Your task to perform on an android device: change the clock style Image 0: 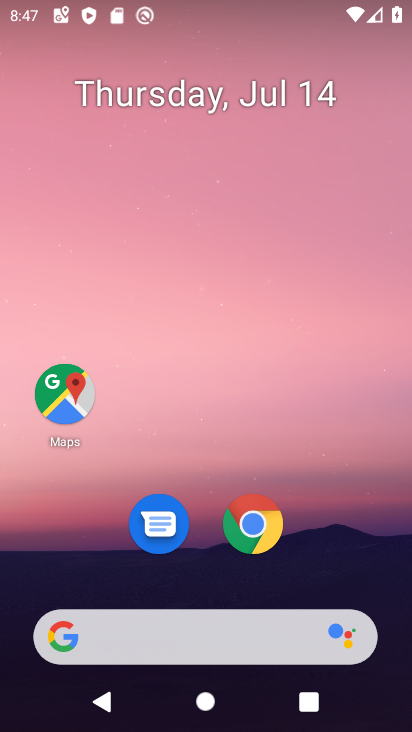
Step 0: drag from (342, 543) to (331, 0)
Your task to perform on an android device: change the clock style Image 1: 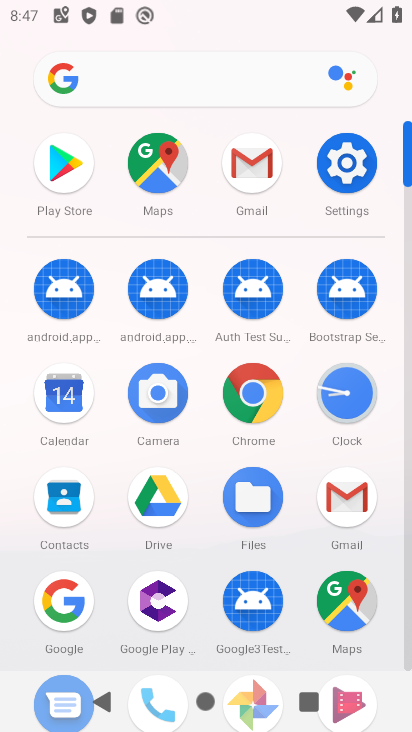
Step 1: click (351, 385)
Your task to perform on an android device: change the clock style Image 2: 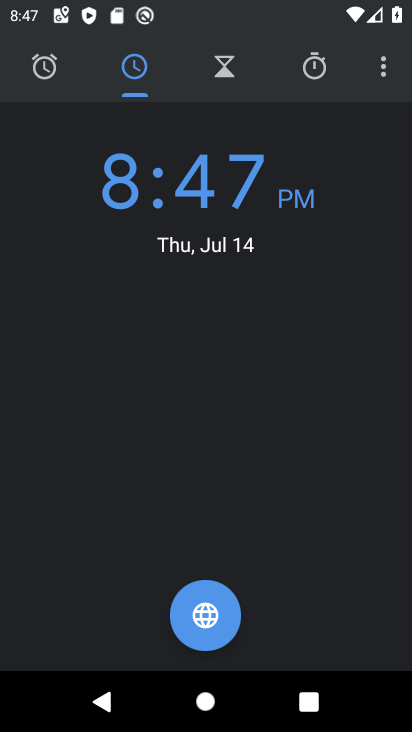
Step 2: click (385, 77)
Your task to perform on an android device: change the clock style Image 3: 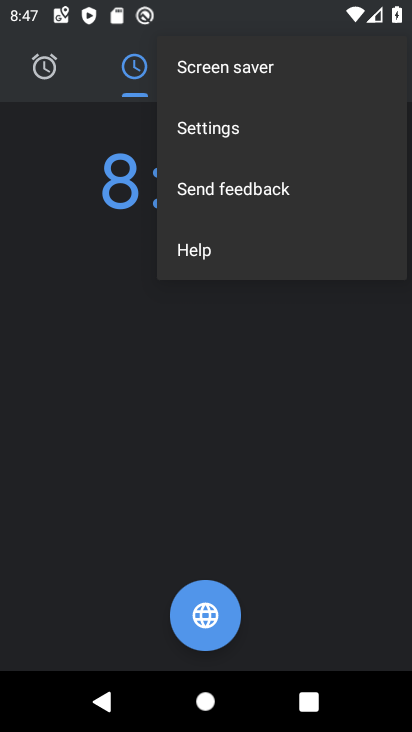
Step 3: click (286, 125)
Your task to perform on an android device: change the clock style Image 4: 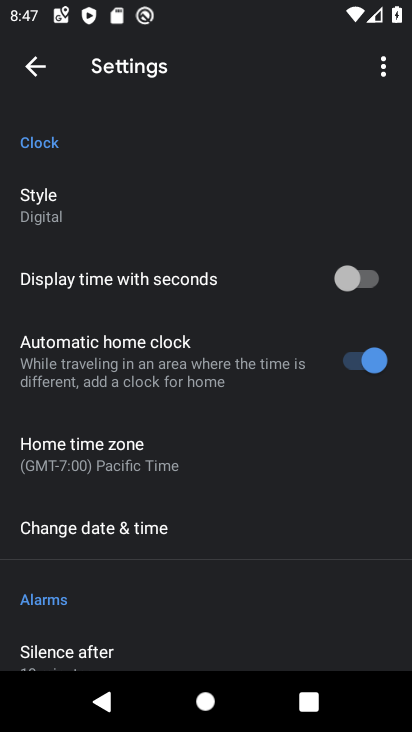
Step 4: click (55, 220)
Your task to perform on an android device: change the clock style Image 5: 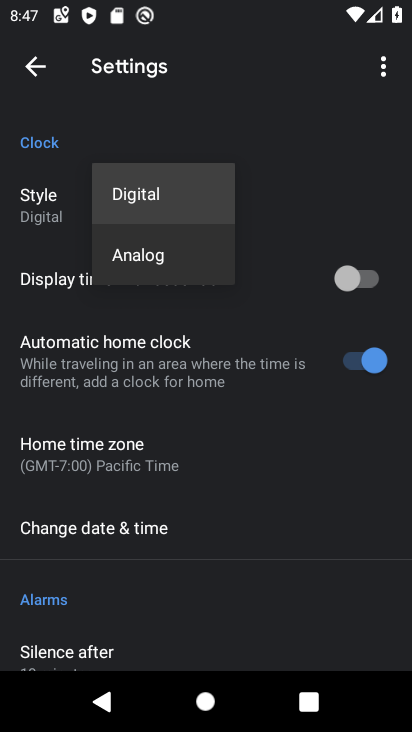
Step 5: click (120, 262)
Your task to perform on an android device: change the clock style Image 6: 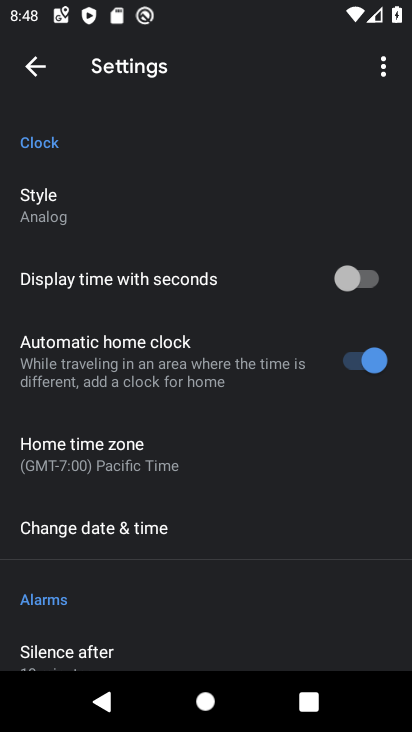
Step 6: click (42, 74)
Your task to perform on an android device: change the clock style Image 7: 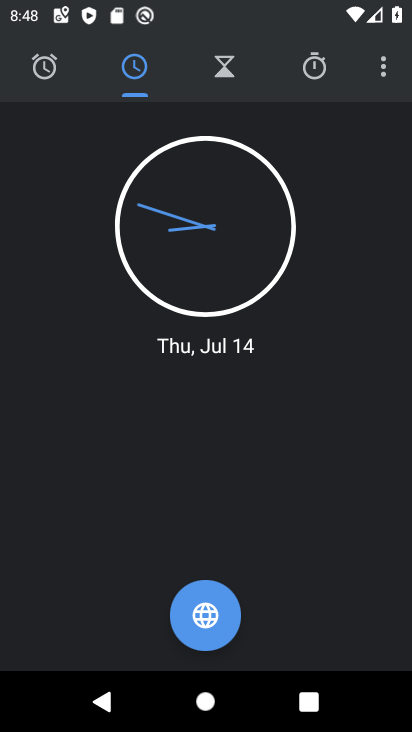
Step 7: task complete